Your task to perform on an android device: toggle pop-ups in chrome Image 0: 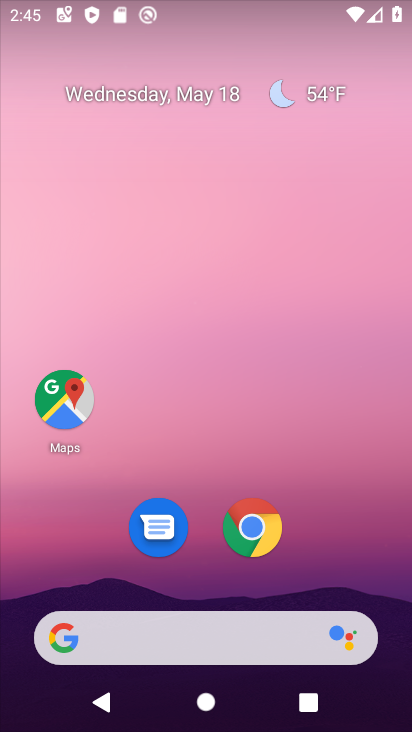
Step 0: drag from (223, 594) to (144, 38)
Your task to perform on an android device: toggle pop-ups in chrome Image 1: 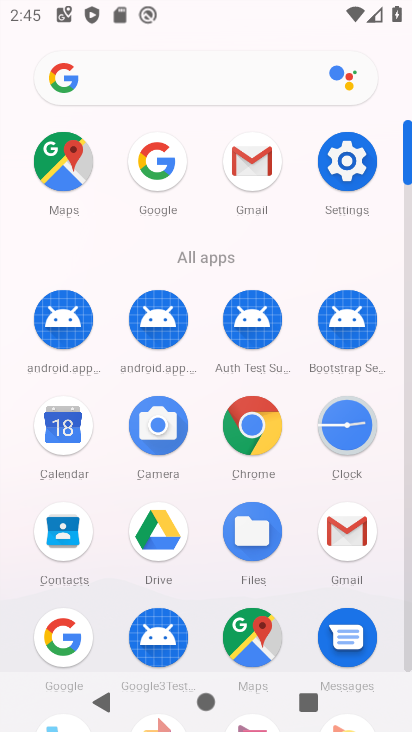
Step 1: click (274, 462)
Your task to perform on an android device: toggle pop-ups in chrome Image 2: 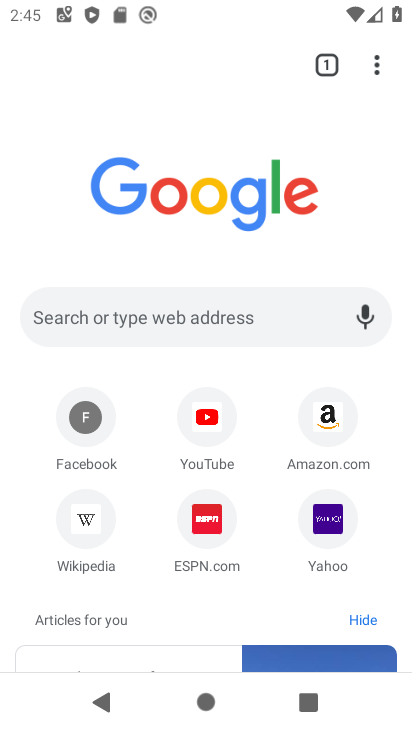
Step 2: click (370, 75)
Your task to perform on an android device: toggle pop-ups in chrome Image 3: 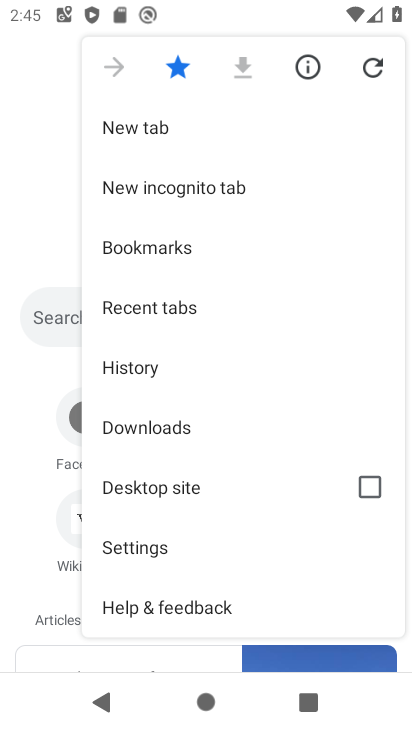
Step 3: click (165, 551)
Your task to perform on an android device: toggle pop-ups in chrome Image 4: 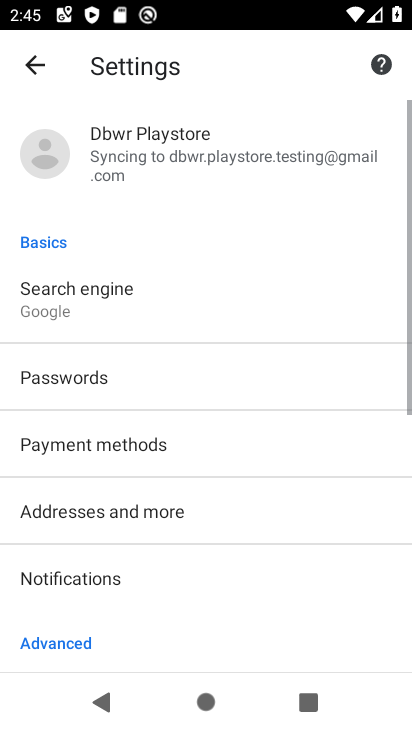
Step 4: drag from (165, 550) to (132, 133)
Your task to perform on an android device: toggle pop-ups in chrome Image 5: 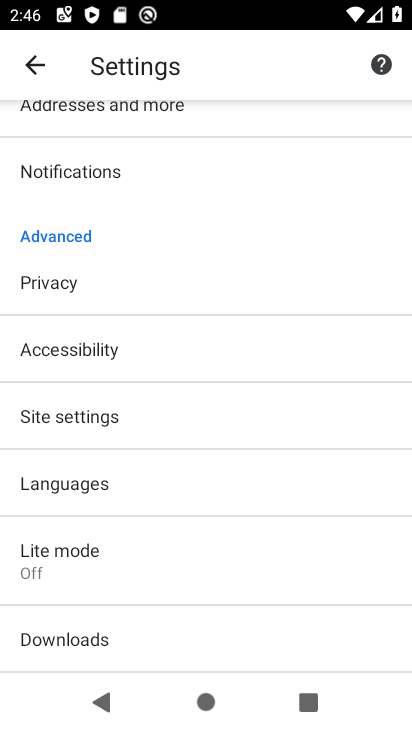
Step 5: click (62, 581)
Your task to perform on an android device: toggle pop-ups in chrome Image 6: 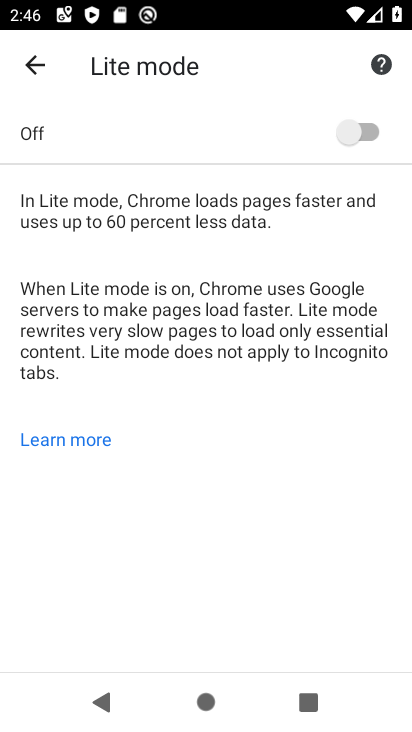
Step 6: click (38, 65)
Your task to perform on an android device: toggle pop-ups in chrome Image 7: 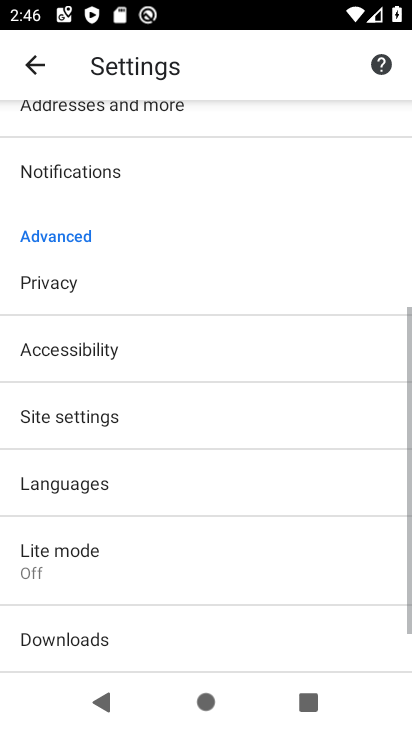
Step 7: click (83, 429)
Your task to perform on an android device: toggle pop-ups in chrome Image 8: 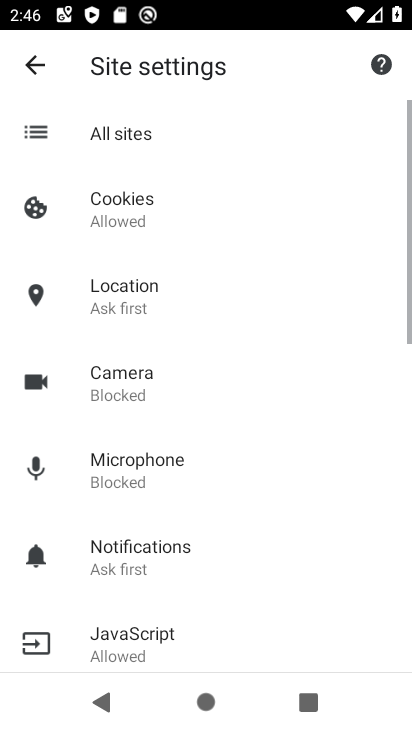
Step 8: drag from (164, 545) to (316, 22)
Your task to perform on an android device: toggle pop-ups in chrome Image 9: 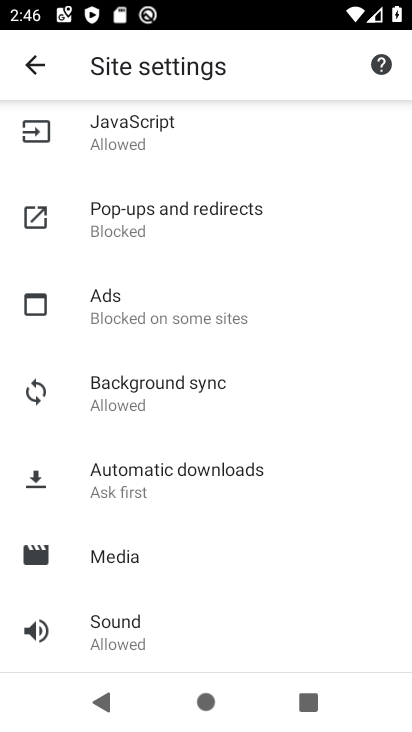
Step 9: drag from (230, 580) to (211, 514)
Your task to perform on an android device: toggle pop-ups in chrome Image 10: 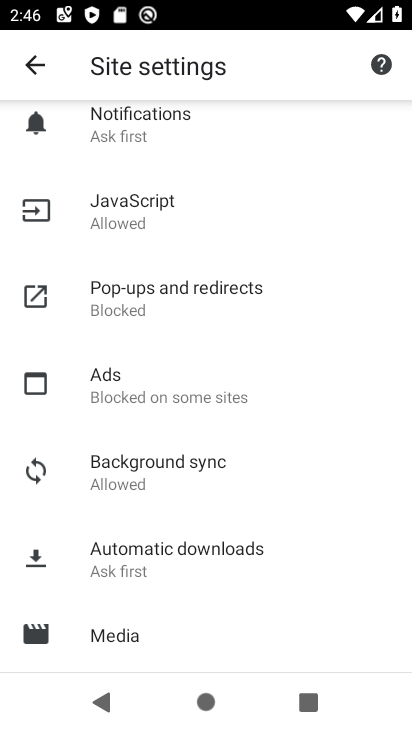
Step 10: click (174, 297)
Your task to perform on an android device: toggle pop-ups in chrome Image 11: 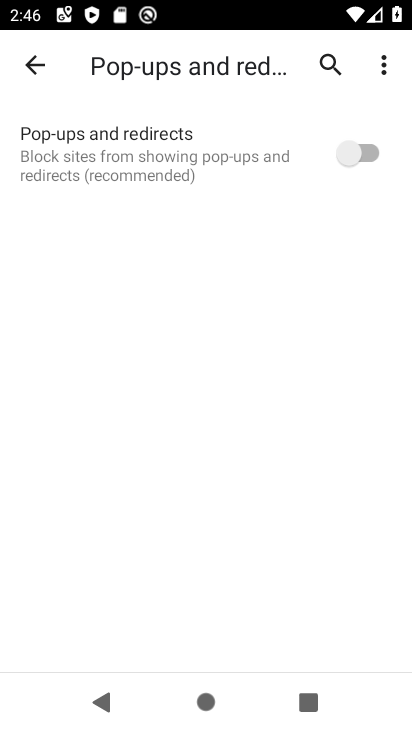
Step 11: click (354, 159)
Your task to perform on an android device: toggle pop-ups in chrome Image 12: 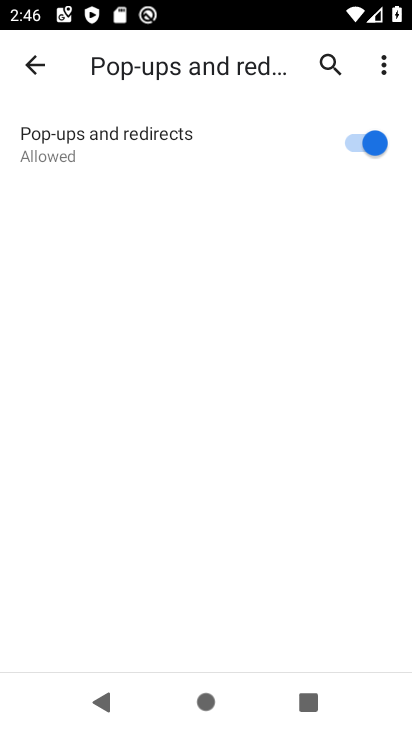
Step 12: task complete